Your task to perform on an android device: remove spam from my inbox in the gmail app Image 0: 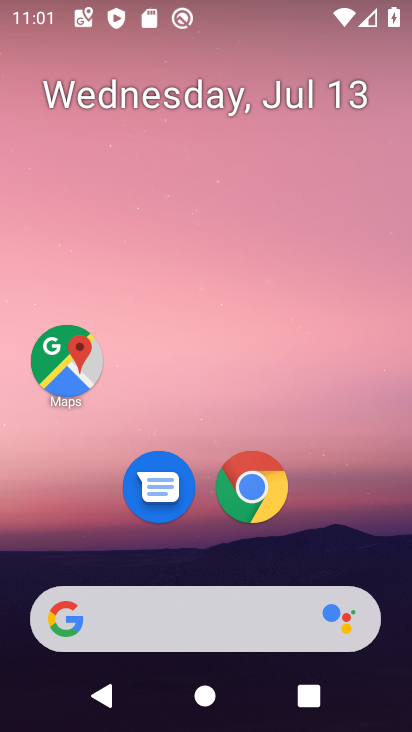
Step 0: drag from (209, 564) to (179, 23)
Your task to perform on an android device: remove spam from my inbox in the gmail app Image 1: 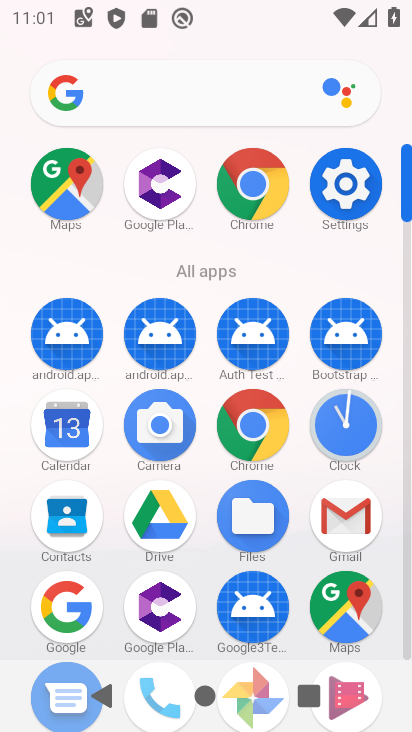
Step 1: click (361, 508)
Your task to perform on an android device: remove spam from my inbox in the gmail app Image 2: 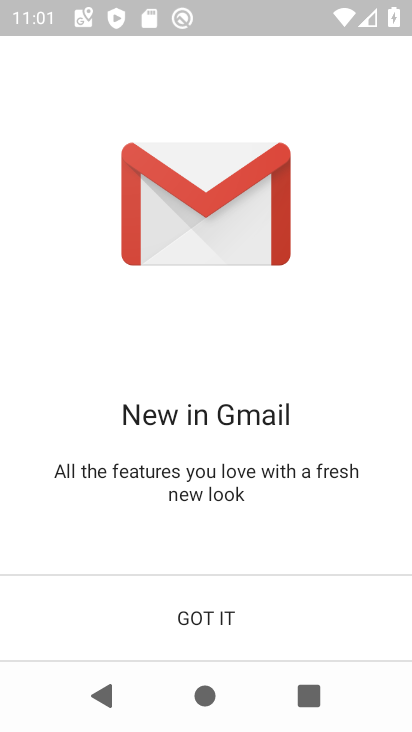
Step 2: click (221, 609)
Your task to perform on an android device: remove spam from my inbox in the gmail app Image 3: 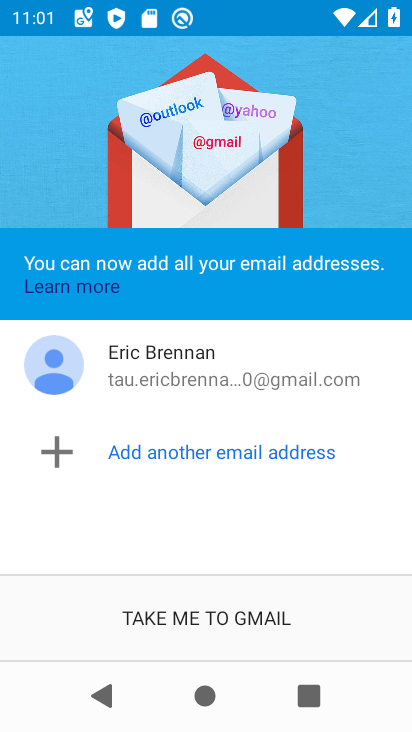
Step 3: click (223, 600)
Your task to perform on an android device: remove spam from my inbox in the gmail app Image 4: 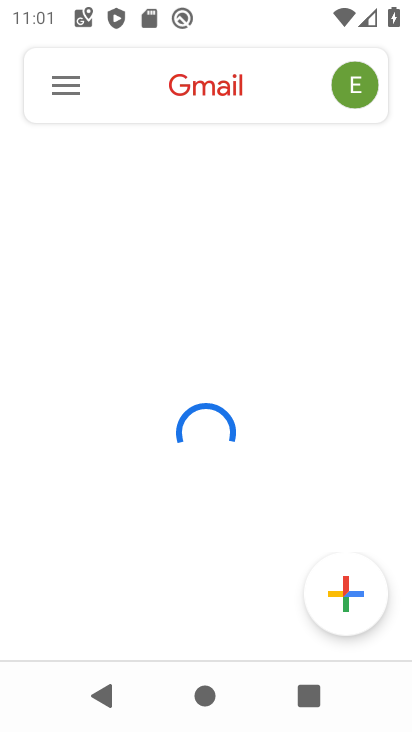
Step 4: click (63, 83)
Your task to perform on an android device: remove spam from my inbox in the gmail app Image 5: 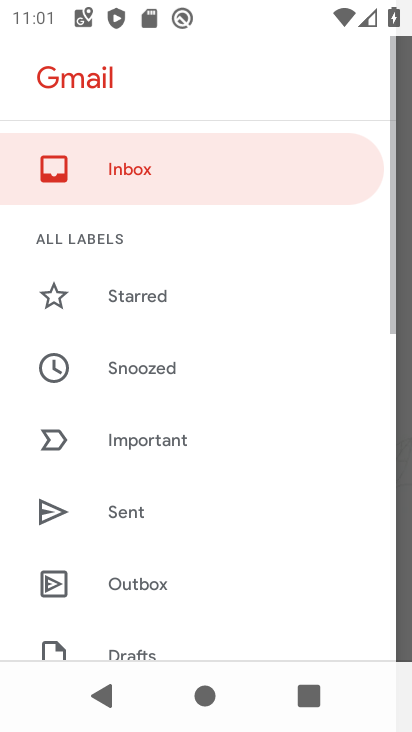
Step 5: drag from (139, 597) to (96, 285)
Your task to perform on an android device: remove spam from my inbox in the gmail app Image 6: 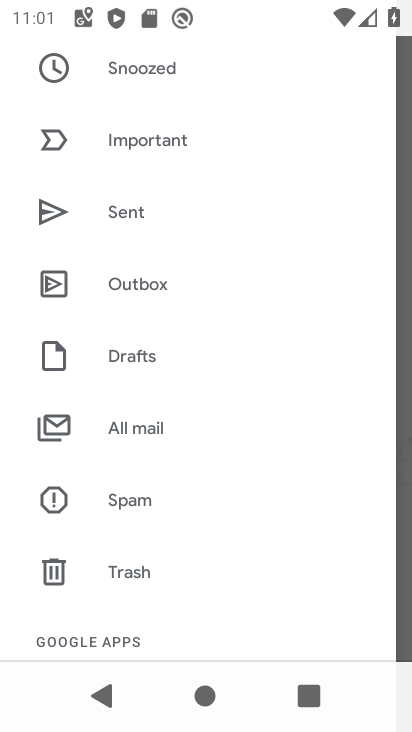
Step 6: click (147, 498)
Your task to perform on an android device: remove spam from my inbox in the gmail app Image 7: 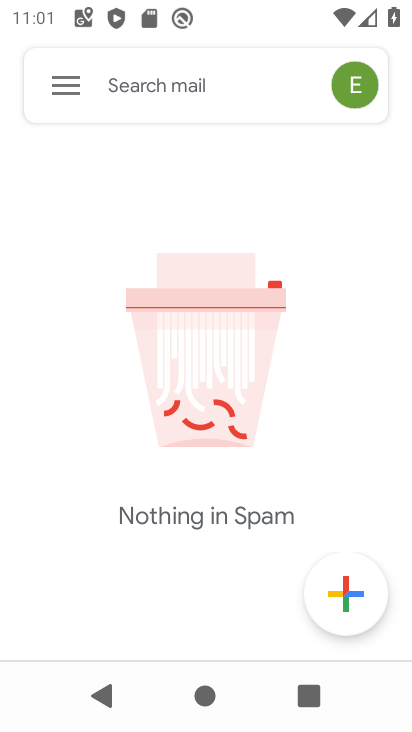
Step 7: task complete